Your task to perform on an android device: Open Chrome and go to settings Image 0: 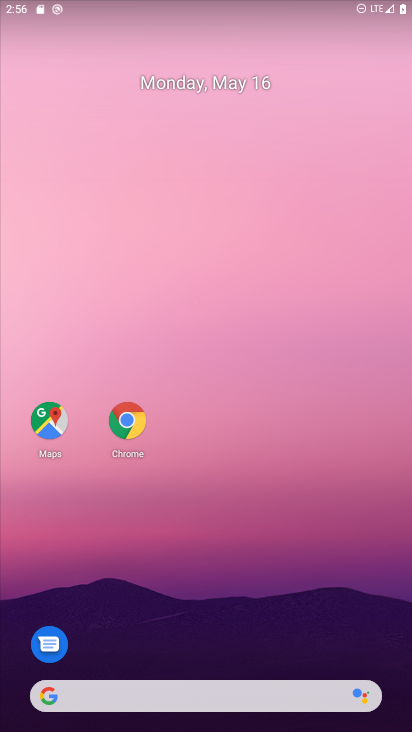
Step 0: click (247, 161)
Your task to perform on an android device: Open Chrome and go to settings Image 1: 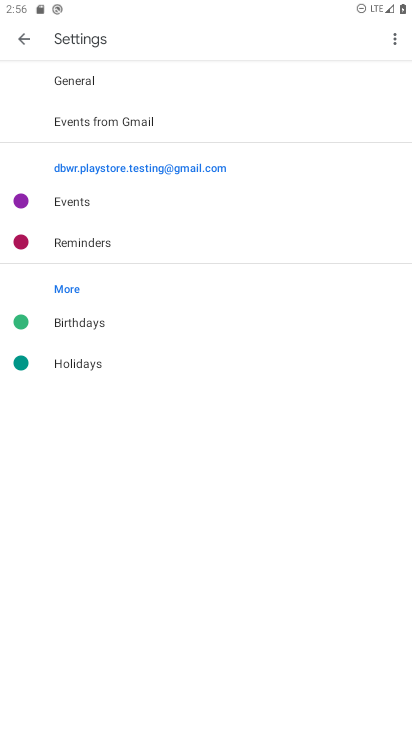
Step 1: drag from (187, 641) to (138, 211)
Your task to perform on an android device: Open Chrome and go to settings Image 2: 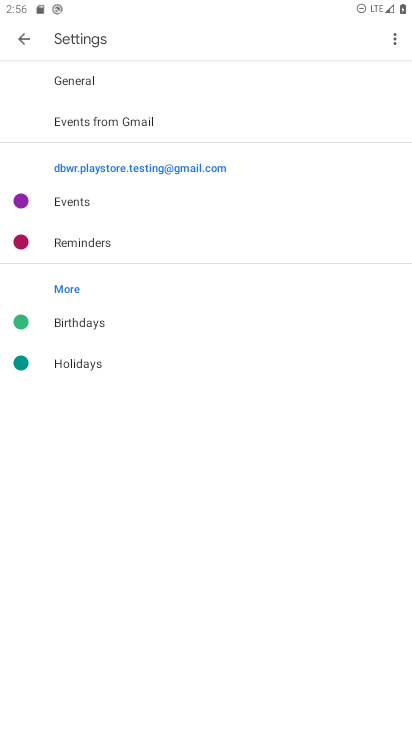
Step 2: click (17, 37)
Your task to perform on an android device: Open Chrome and go to settings Image 3: 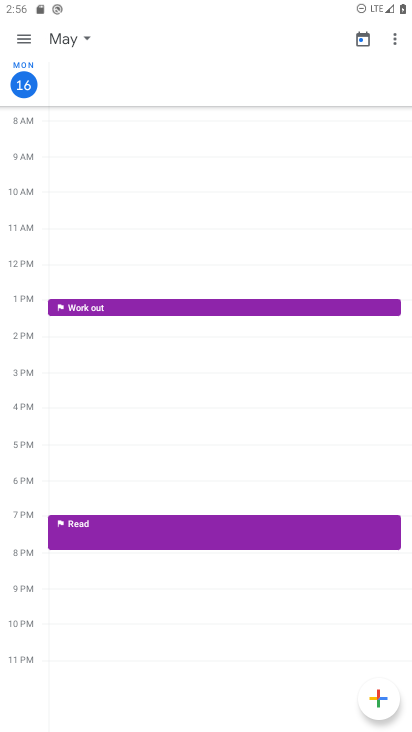
Step 3: click (65, 25)
Your task to perform on an android device: Open Chrome and go to settings Image 4: 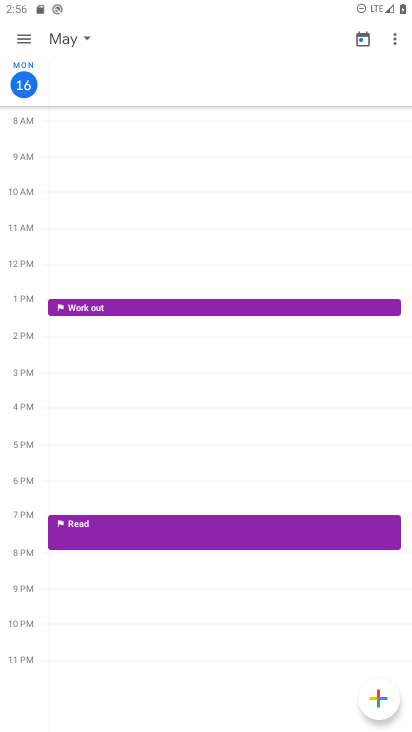
Step 4: click (73, 32)
Your task to perform on an android device: Open Chrome and go to settings Image 5: 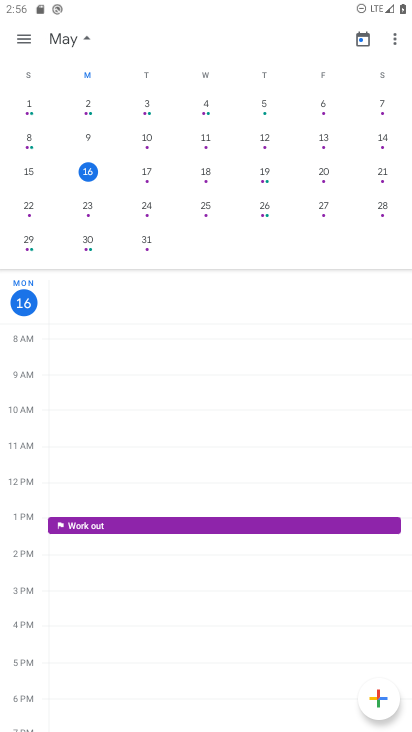
Step 5: click (84, 40)
Your task to perform on an android device: Open Chrome and go to settings Image 6: 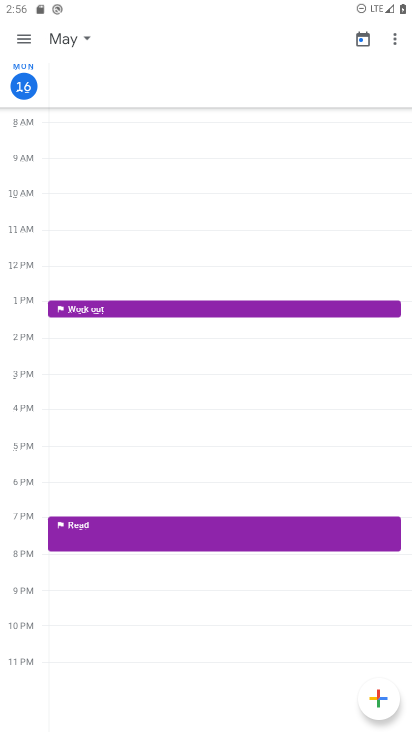
Step 6: click (84, 40)
Your task to perform on an android device: Open Chrome and go to settings Image 7: 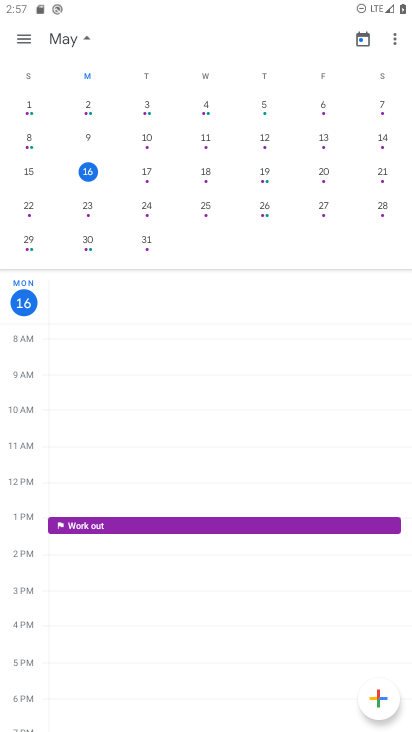
Step 7: click (82, 30)
Your task to perform on an android device: Open Chrome and go to settings Image 8: 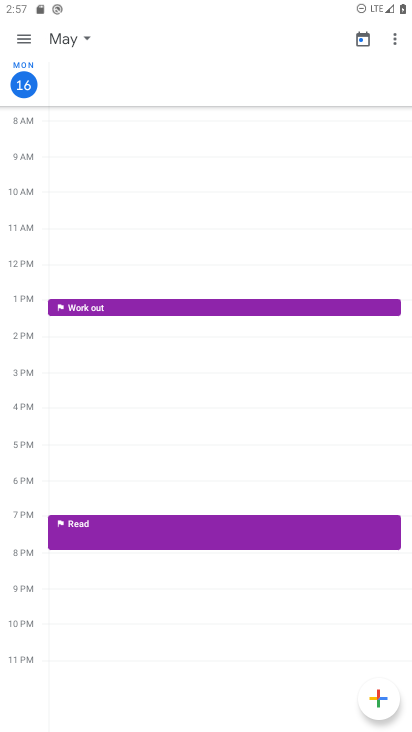
Step 8: click (84, 32)
Your task to perform on an android device: Open Chrome and go to settings Image 9: 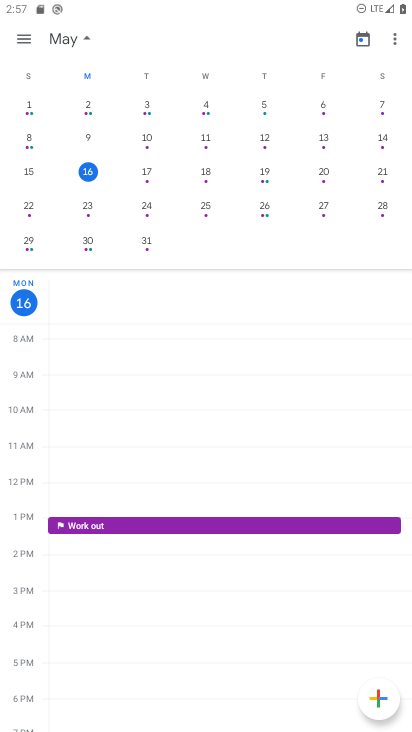
Step 9: press home button
Your task to perform on an android device: Open Chrome and go to settings Image 10: 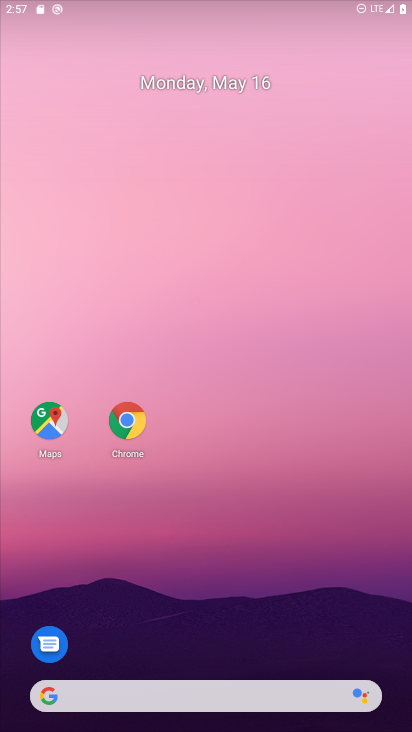
Step 10: drag from (238, 319) to (225, 0)
Your task to perform on an android device: Open Chrome and go to settings Image 11: 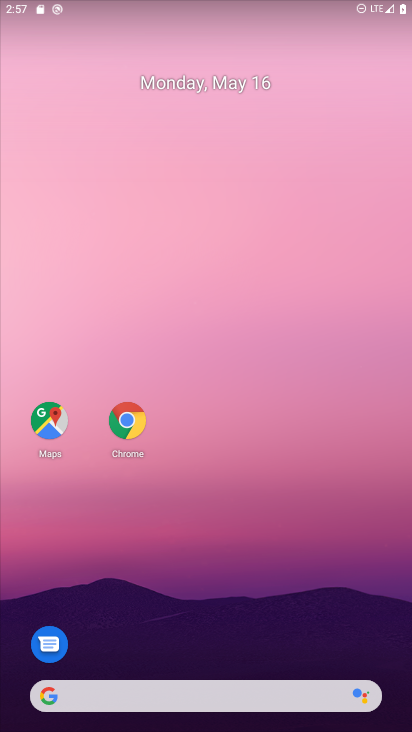
Step 11: click (127, 416)
Your task to perform on an android device: Open Chrome and go to settings Image 12: 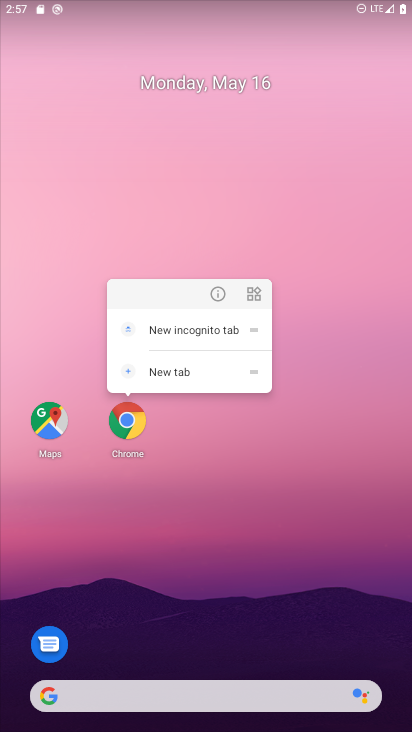
Step 12: click (226, 293)
Your task to perform on an android device: Open Chrome and go to settings Image 13: 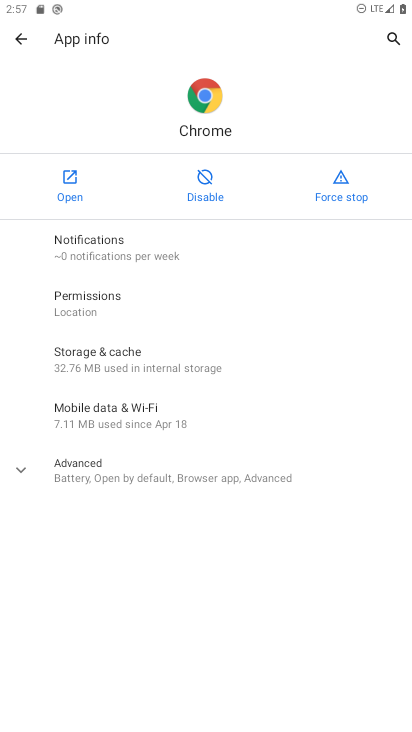
Step 13: click (72, 176)
Your task to perform on an android device: Open Chrome and go to settings Image 14: 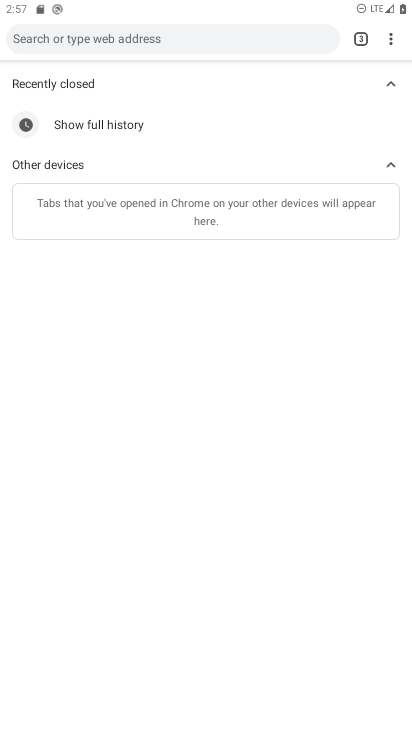
Step 14: click (387, 37)
Your task to perform on an android device: Open Chrome and go to settings Image 15: 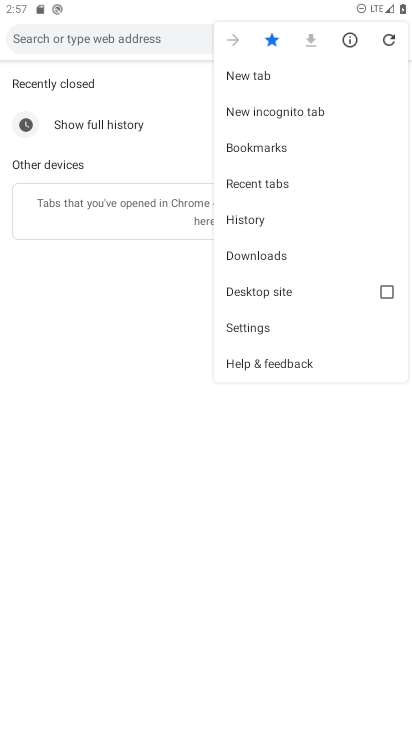
Step 15: click (260, 332)
Your task to perform on an android device: Open Chrome and go to settings Image 16: 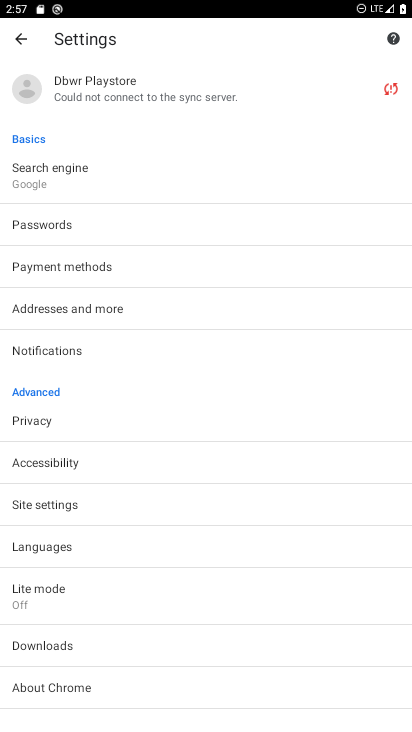
Step 16: task complete